Your task to perform on an android device: Open the stopwatch Image 0: 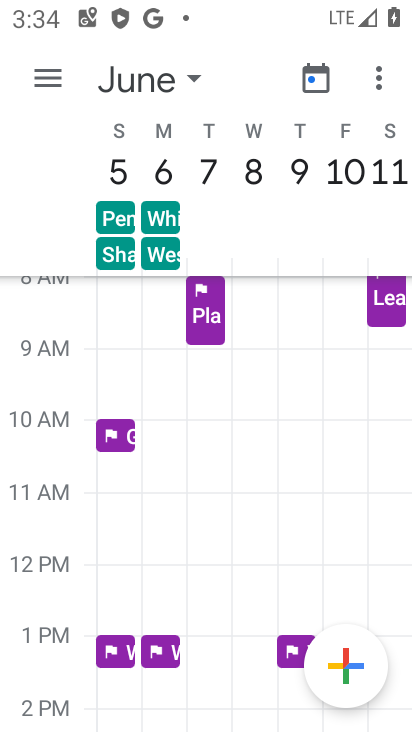
Step 0: press home button
Your task to perform on an android device: Open the stopwatch Image 1: 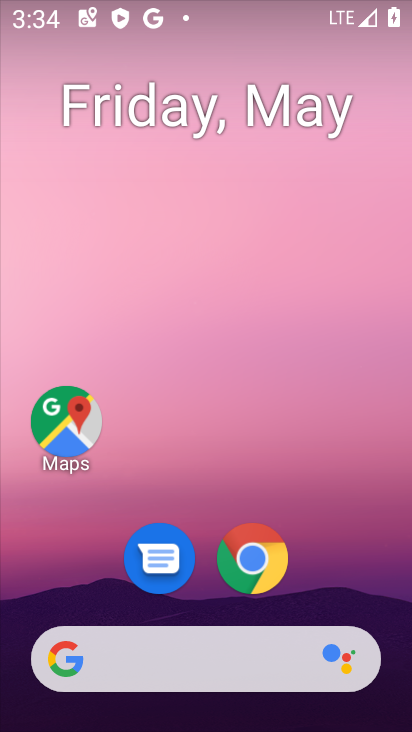
Step 1: drag from (168, 666) to (318, 156)
Your task to perform on an android device: Open the stopwatch Image 2: 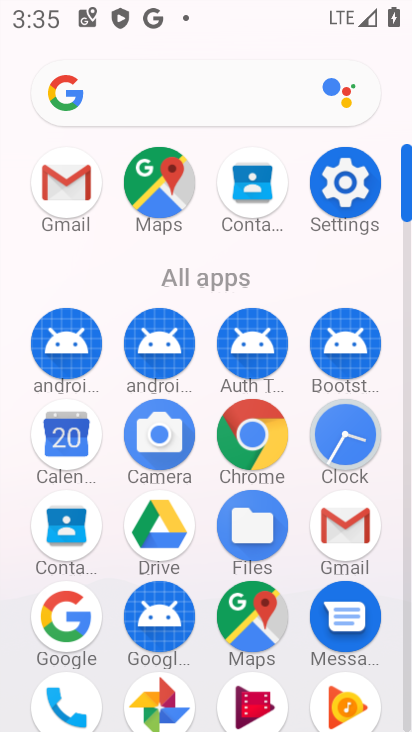
Step 2: click (348, 439)
Your task to perform on an android device: Open the stopwatch Image 3: 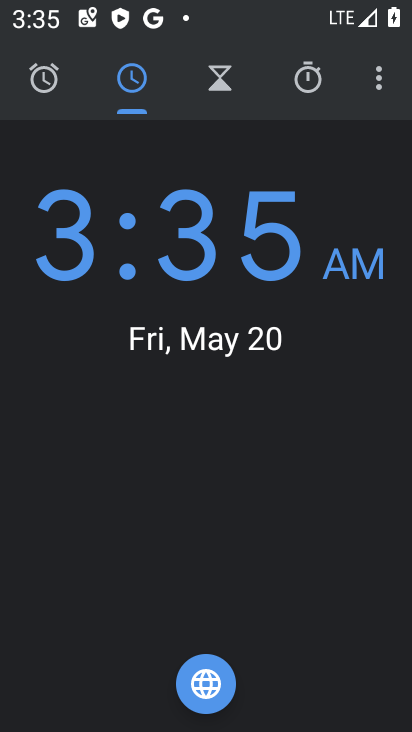
Step 3: click (314, 87)
Your task to perform on an android device: Open the stopwatch Image 4: 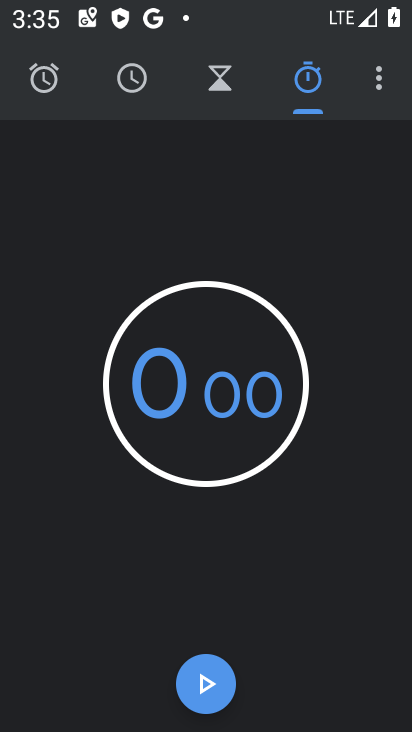
Step 4: task complete